Your task to perform on an android device: Open wifi settings Image 0: 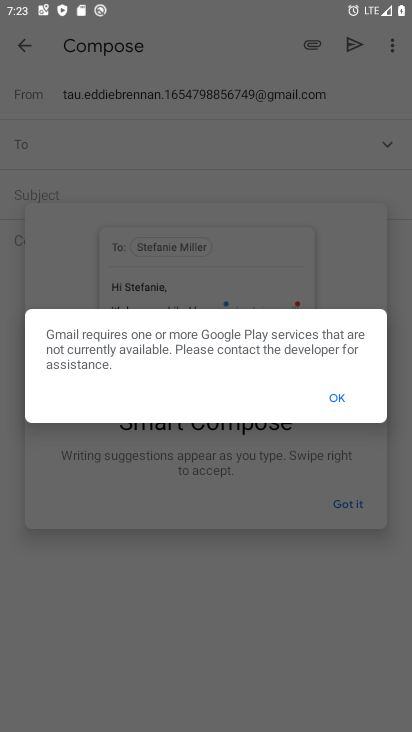
Step 0: press home button
Your task to perform on an android device: Open wifi settings Image 1: 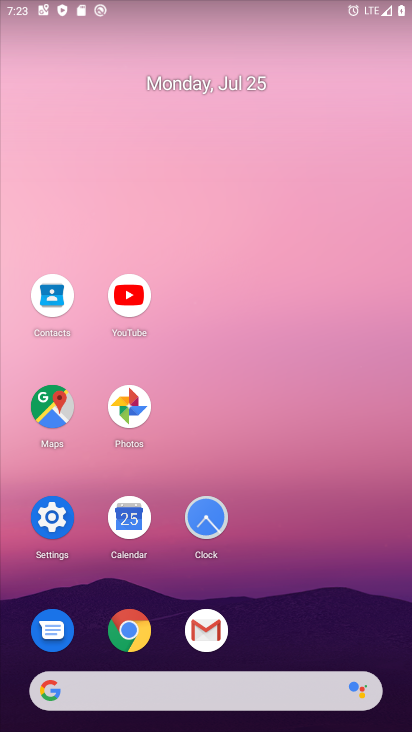
Step 1: click (48, 515)
Your task to perform on an android device: Open wifi settings Image 2: 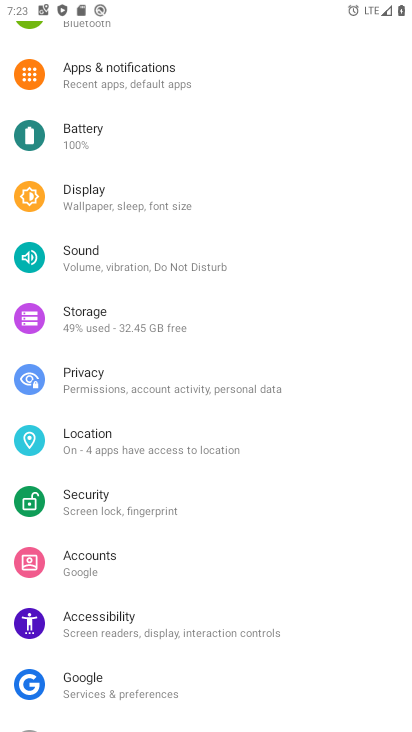
Step 2: drag from (259, 154) to (280, 610)
Your task to perform on an android device: Open wifi settings Image 3: 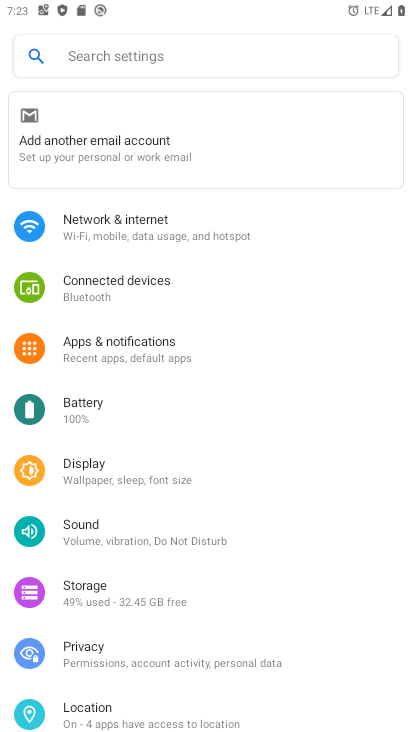
Step 3: click (108, 227)
Your task to perform on an android device: Open wifi settings Image 4: 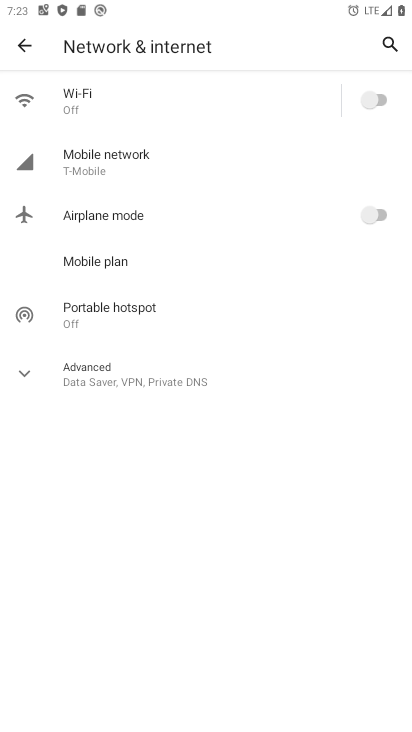
Step 4: click (66, 102)
Your task to perform on an android device: Open wifi settings Image 5: 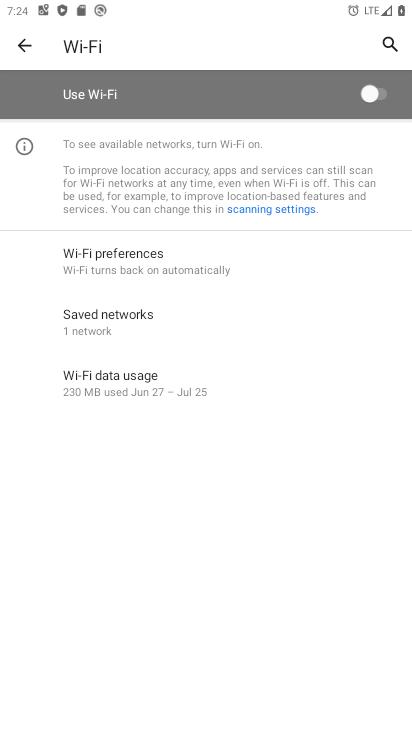
Step 5: task complete